Your task to perform on an android device: choose inbox layout in the gmail app Image 0: 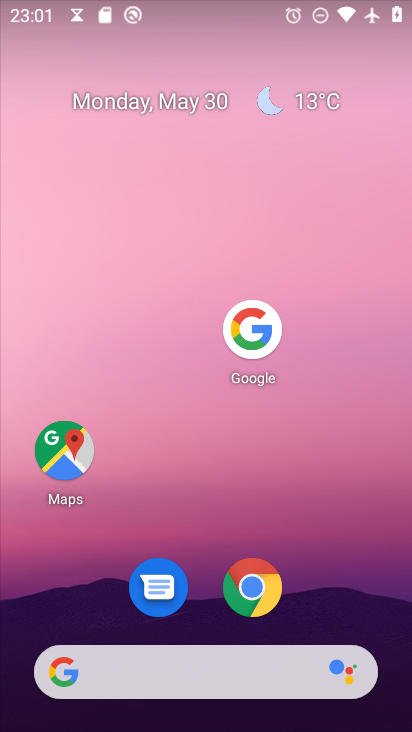
Step 0: press home button
Your task to perform on an android device: choose inbox layout in the gmail app Image 1: 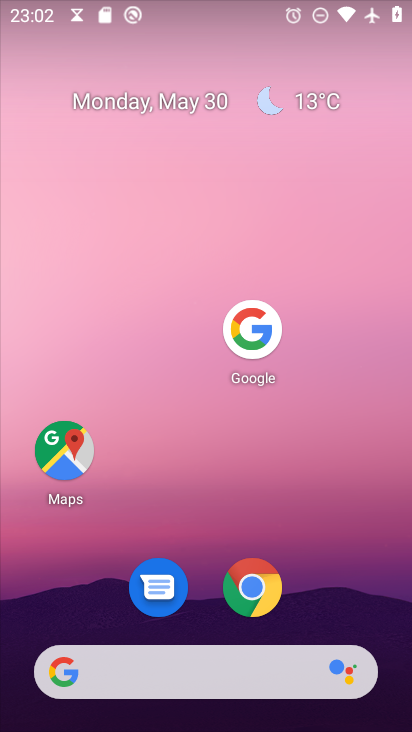
Step 1: drag from (208, 672) to (285, 120)
Your task to perform on an android device: choose inbox layout in the gmail app Image 2: 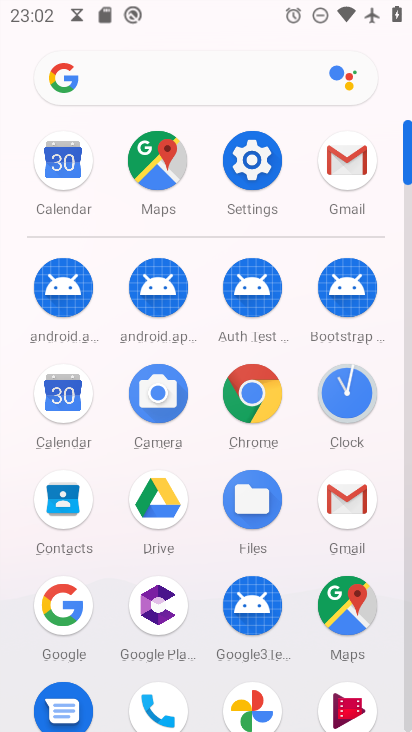
Step 2: click (344, 173)
Your task to perform on an android device: choose inbox layout in the gmail app Image 3: 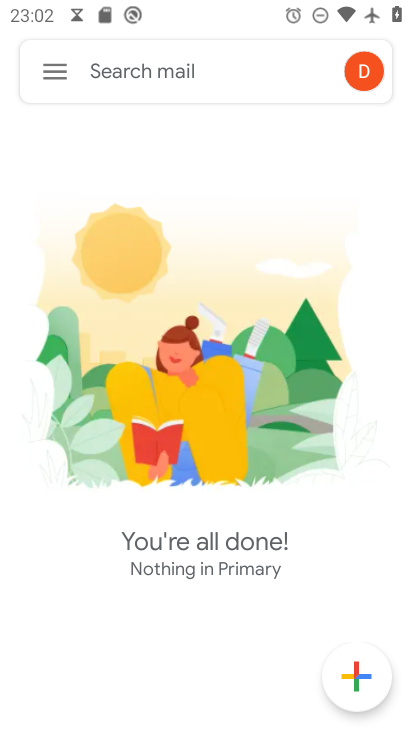
Step 3: click (57, 70)
Your task to perform on an android device: choose inbox layout in the gmail app Image 4: 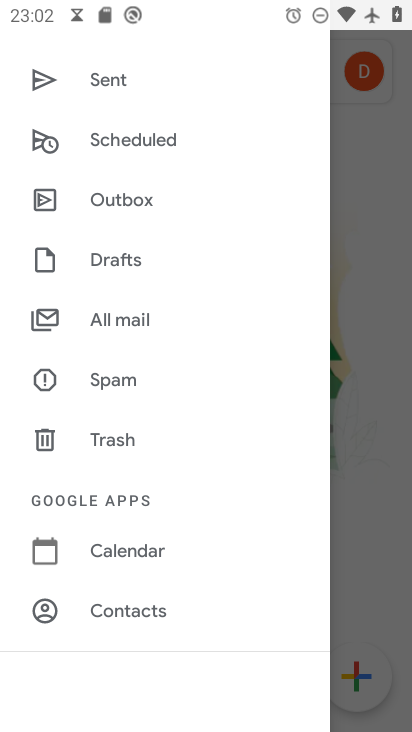
Step 4: drag from (206, 616) to (260, 84)
Your task to perform on an android device: choose inbox layout in the gmail app Image 5: 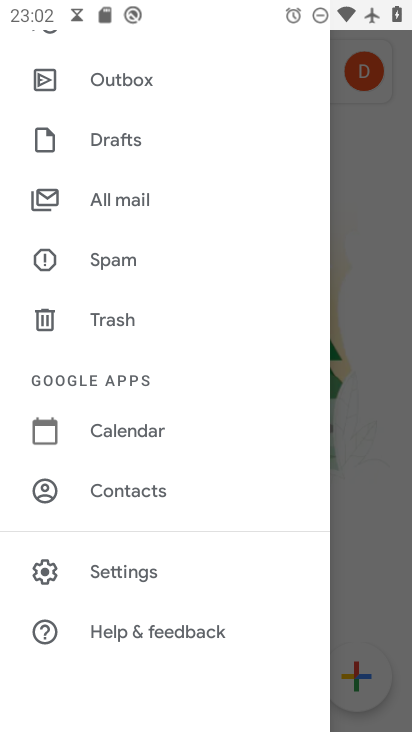
Step 5: click (132, 568)
Your task to perform on an android device: choose inbox layout in the gmail app Image 6: 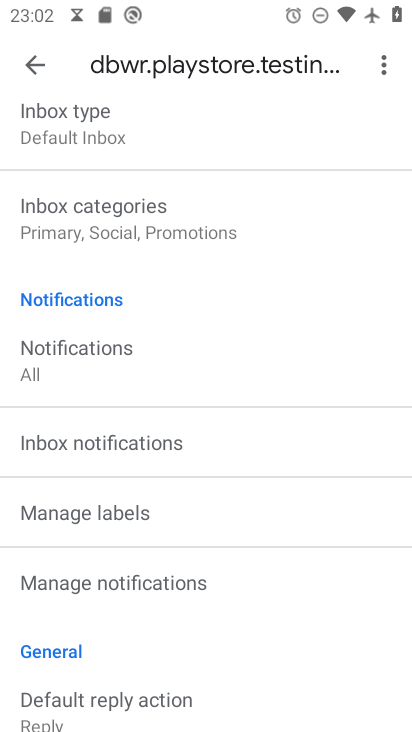
Step 6: click (97, 124)
Your task to perform on an android device: choose inbox layout in the gmail app Image 7: 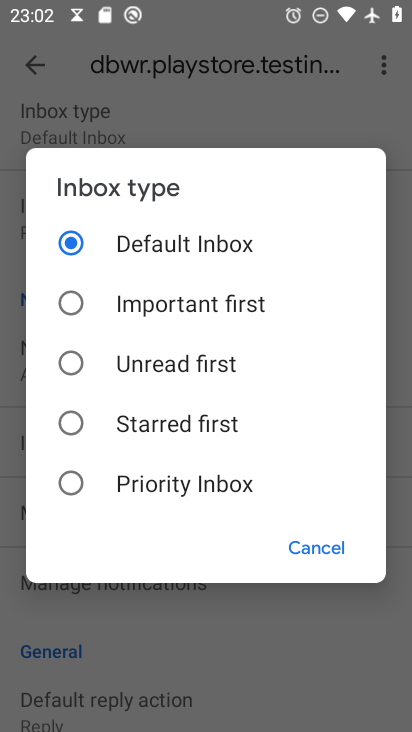
Step 7: click (75, 355)
Your task to perform on an android device: choose inbox layout in the gmail app Image 8: 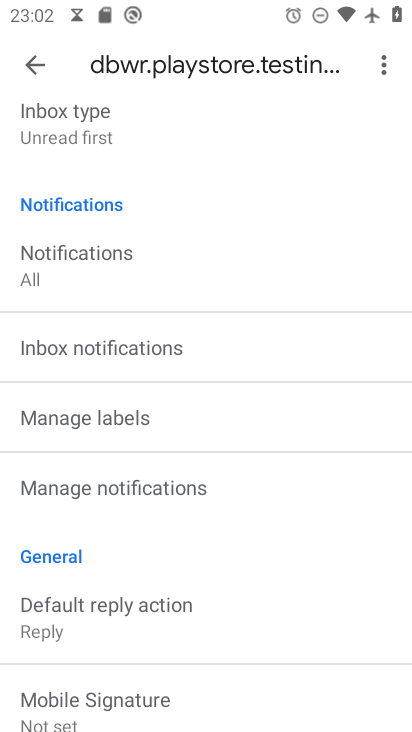
Step 8: task complete